Your task to perform on an android device: Search for Mexican restaurants on Maps Image 0: 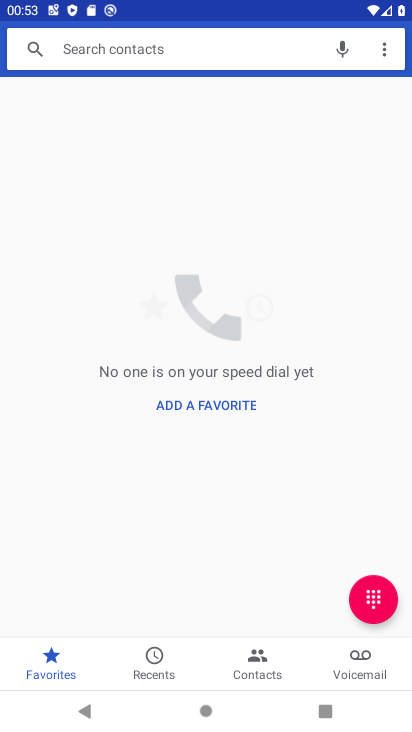
Step 0: press home button
Your task to perform on an android device: Search for Mexican restaurants on Maps Image 1: 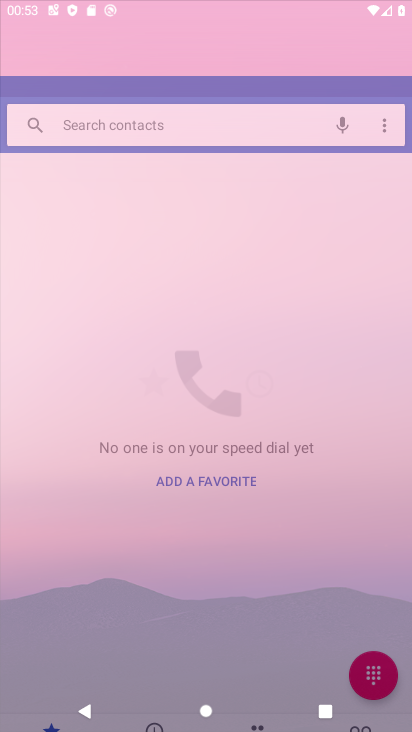
Step 1: drag from (185, 618) to (173, 81)
Your task to perform on an android device: Search for Mexican restaurants on Maps Image 2: 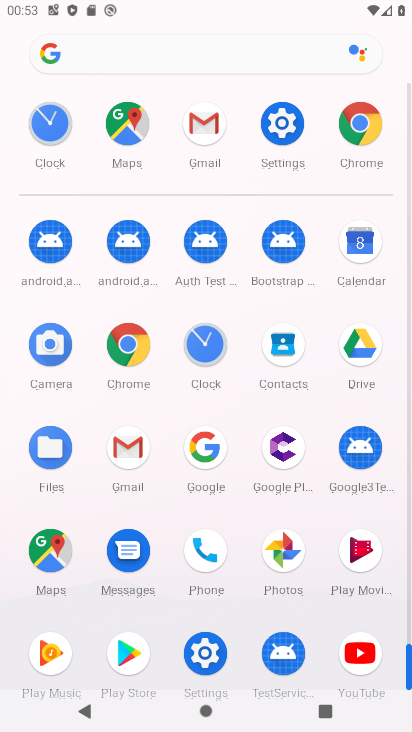
Step 2: click (51, 552)
Your task to perform on an android device: Search for Mexican restaurants on Maps Image 3: 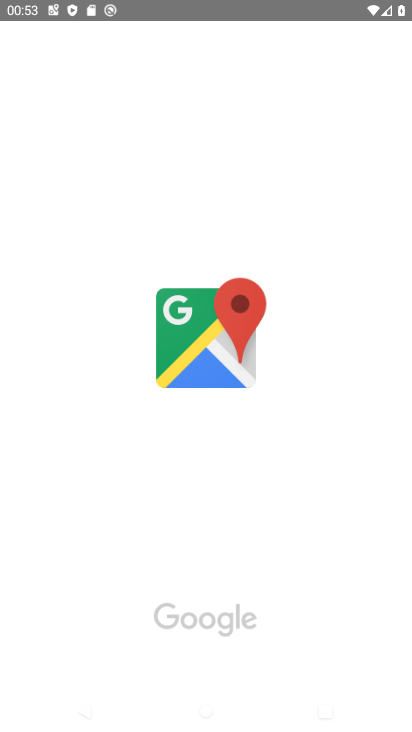
Step 3: drag from (186, 684) to (263, 269)
Your task to perform on an android device: Search for Mexican restaurants on Maps Image 4: 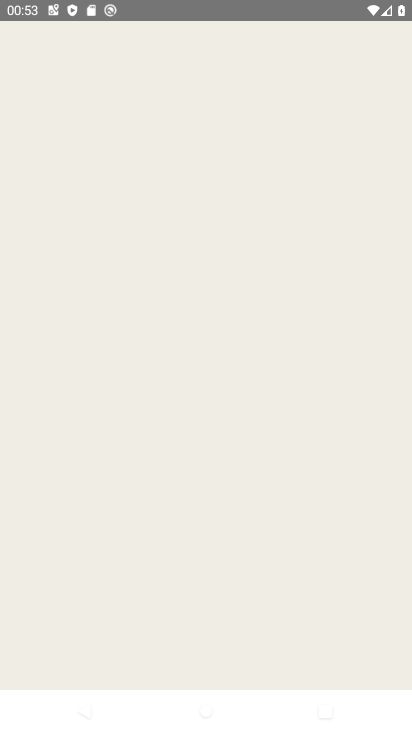
Step 4: drag from (197, 333) to (207, 183)
Your task to perform on an android device: Search for Mexican restaurants on Maps Image 5: 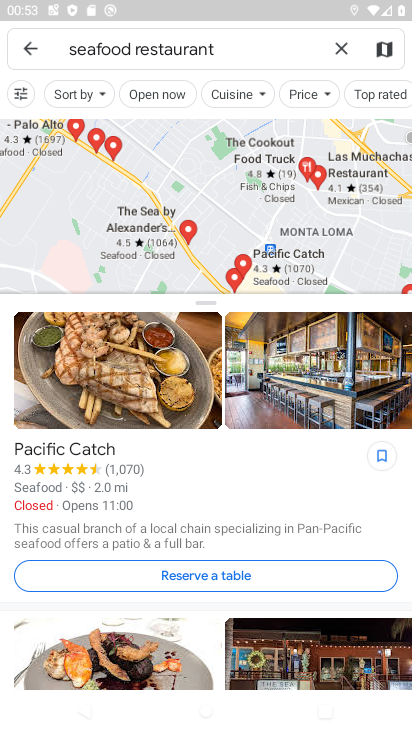
Step 5: drag from (173, 551) to (197, 200)
Your task to perform on an android device: Search for Mexican restaurants on Maps Image 6: 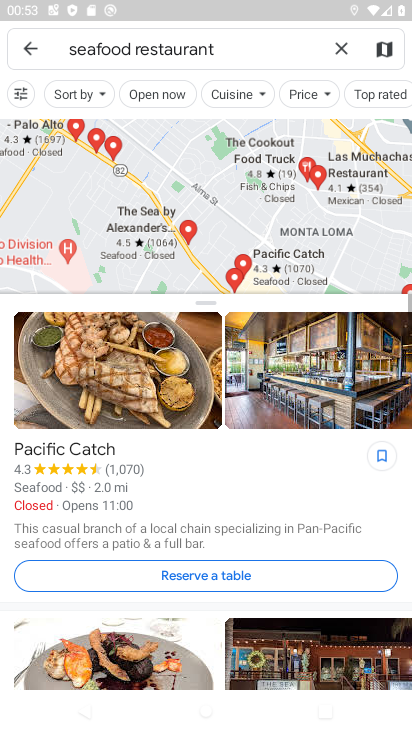
Step 6: click (40, 49)
Your task to perform on an android device: Search for Mexican restaurants on Maps Image 7: 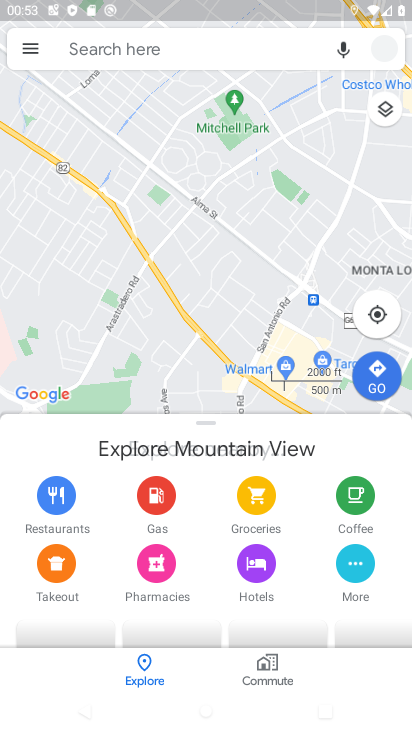
Step 7: click (27, 40)
Your task to perform on an android device: Search for Mexican restaurants on Maps Image 8: 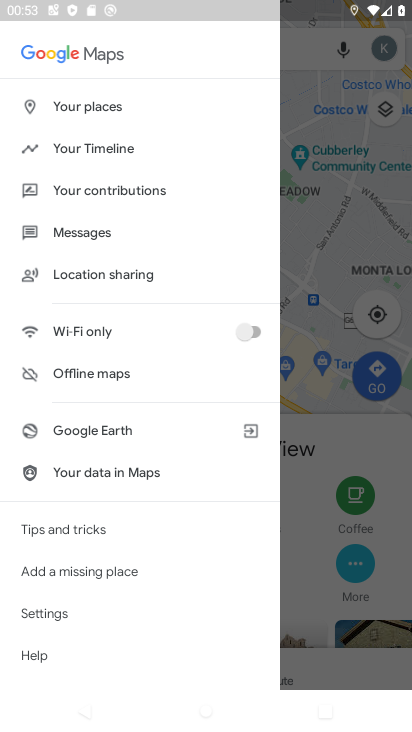
Step 8: drag from (87, 631) to (133, 135)
Your task to perform on an android device: Search for Mexican restaurants on Maps Image 9: 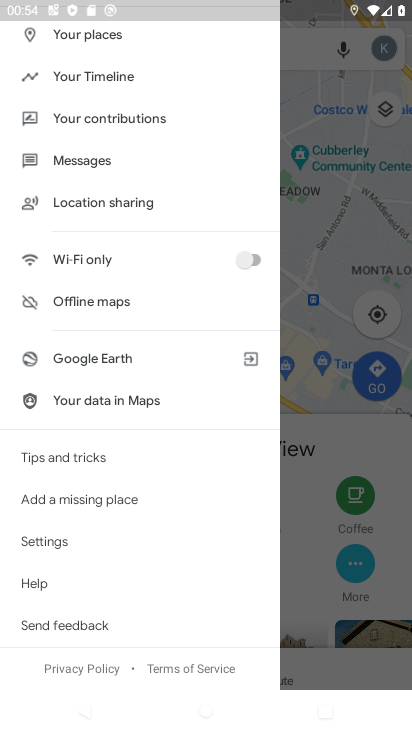
Step 9: click (285, 40)
Your task to perform on an android device: Search for Mexican restaurants on Maps Image 10: 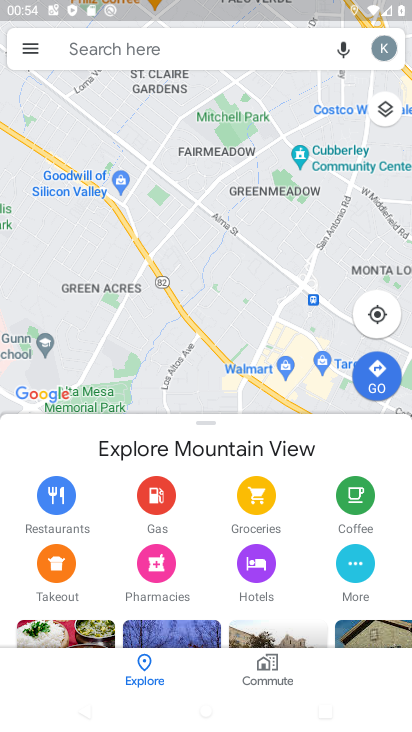
Step 10: click (231, 51)
Your task to perform on an android device: Search for Mexican restaurants on Maps Image 11: 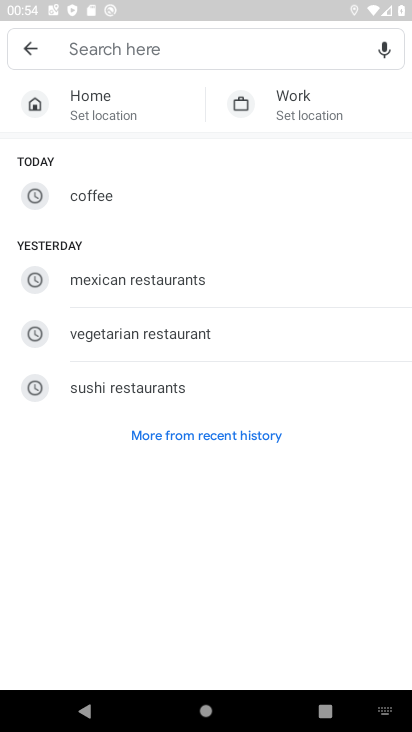
Step 11: click (105, 283)
Your task to perform on an android device: Search for Mexican restaurants on Maps Image 12: 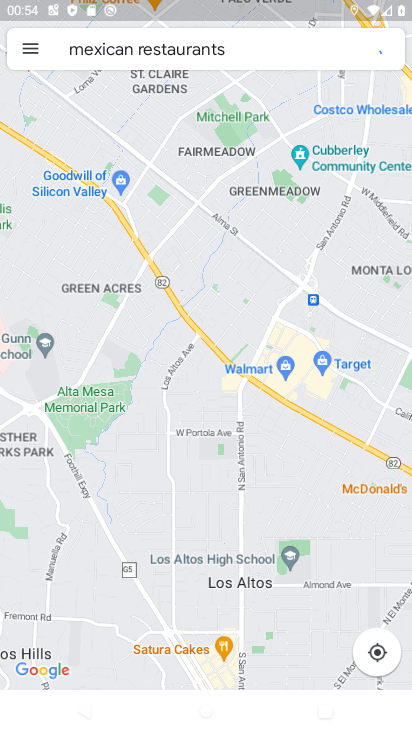
Step 12: task complete